Your task to perform on an android device: toggle data saver in the chrome app Image 0: 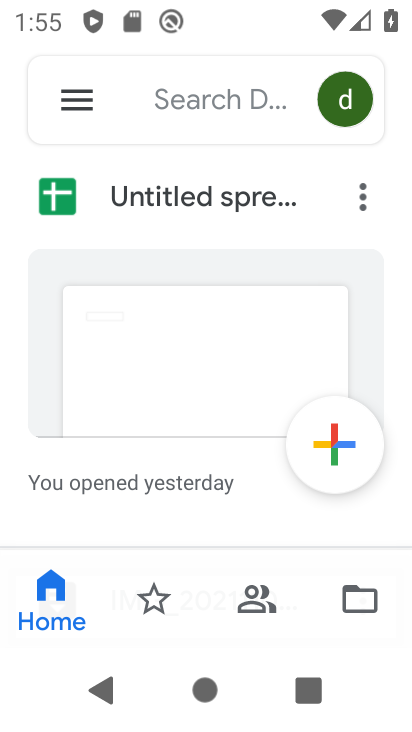
Step 0: press home button
Your task to perform on an android device: toggle data saver in the chrome app Image 1: 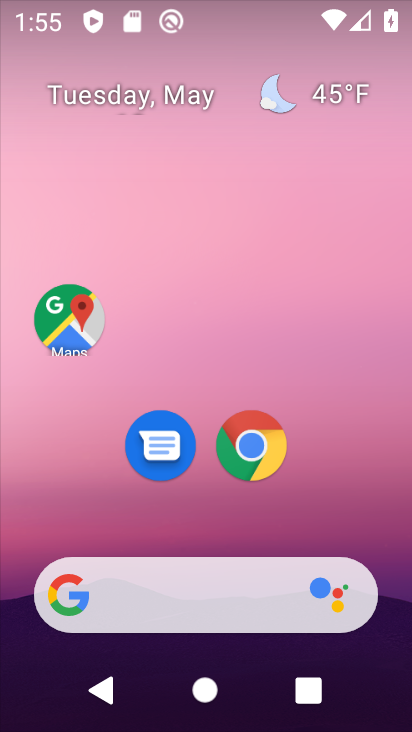
Step 1: click (254, 439)
Your task to perform on an android device: toggle data saver in the chrome app Image 2: 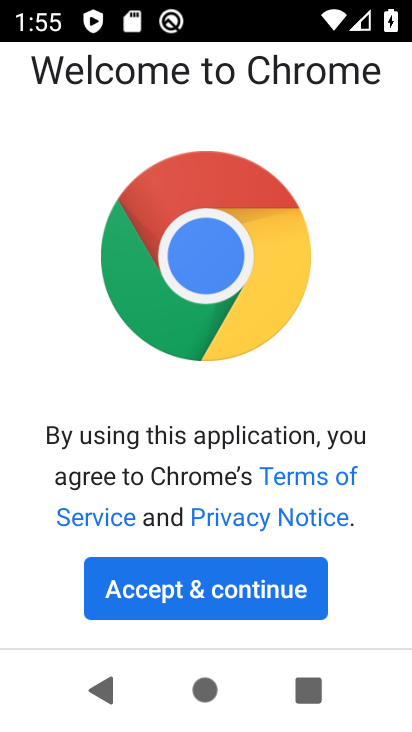
Step 2: click (206, 590)
Your task to perform on an android device: toggle data saver in the chrome app Image 3: 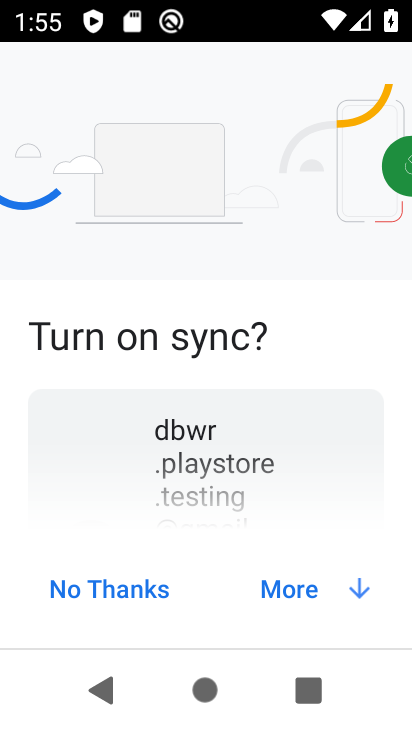
Step 3: click (294, 588)
Your task to perform on an android device: toggle data saver in the chrome app Image 4: 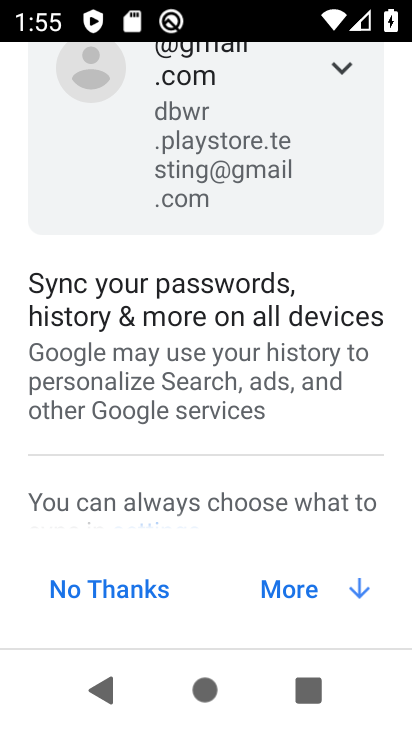
Step 4: click (295, 588)
Your task to perform on an android device: toggle data saver in the chrome app Image 5: 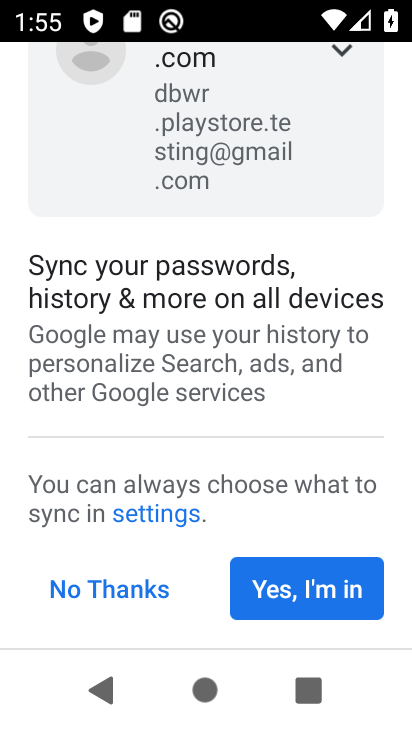
Step 5: click (295, 588)
Your task to perform on an android device: toggle data saver in the chrome app Image 6: 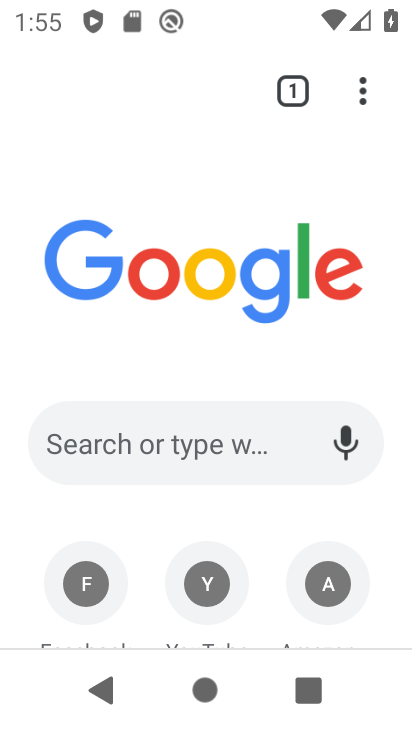
Step 6: click (352, 91)
Your task to perform on an android device: toggle data saver in the chrome app Image 7: 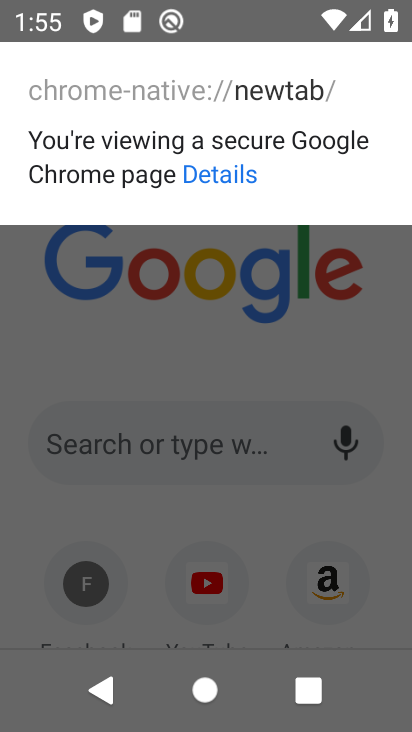
Step 7: click (310, 251)
Your task to perform on an android device: toggle data saver in the chrome app Image 8: 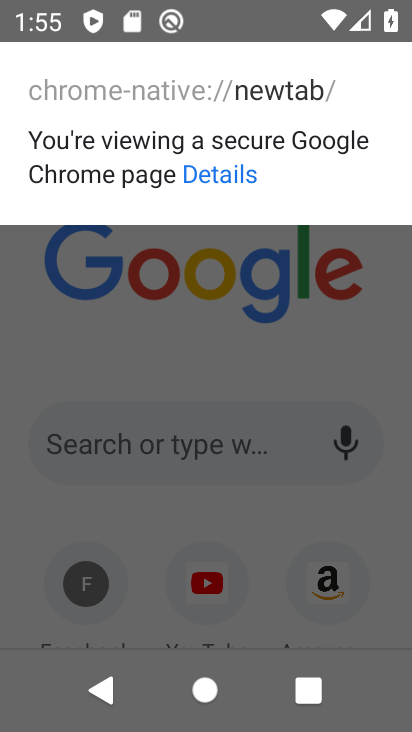
Step 8: click (347, 325)
Your task to perform on an android device: toggle data saver in the chrome app Image 9: 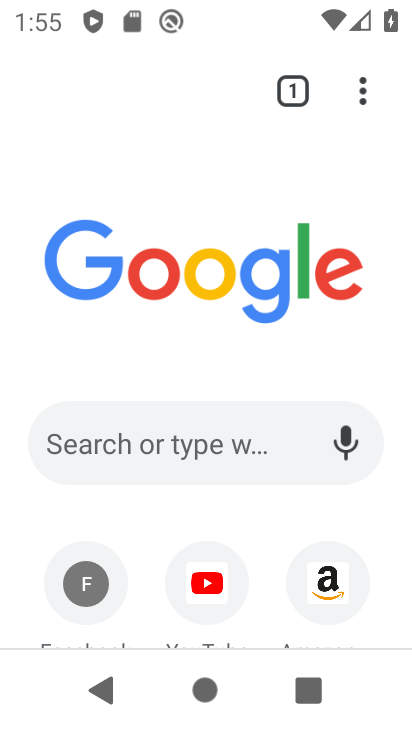
Step 9: click (351, 89)
Your task to perform on an android device: toggle data saver in the chrome app Image 10: 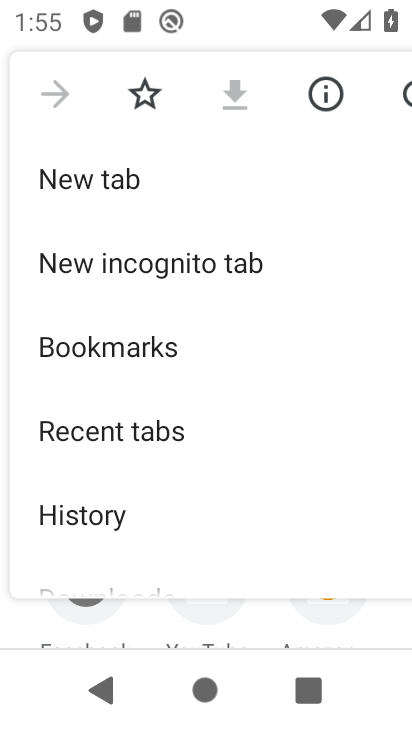
Step 10: drag from (285, 572) to (325, 172)
Your task to perform on an android device: toggle data saver in the chrome app Image 11: 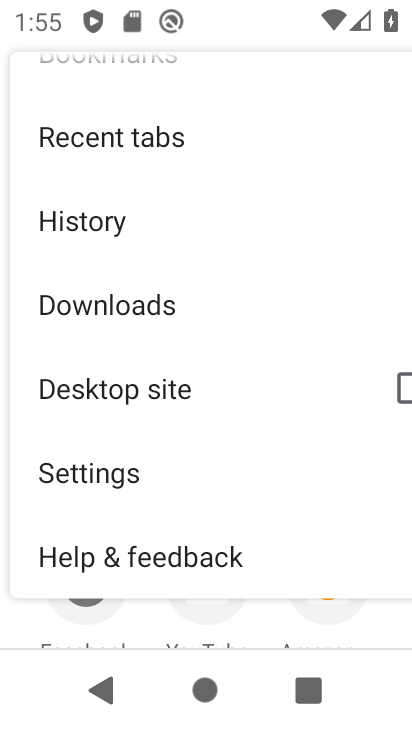
Step 11: drag from (209, 501) to (247, 142)
Your task to perform on an android device: toggle data saver in the chrome app Image 12: 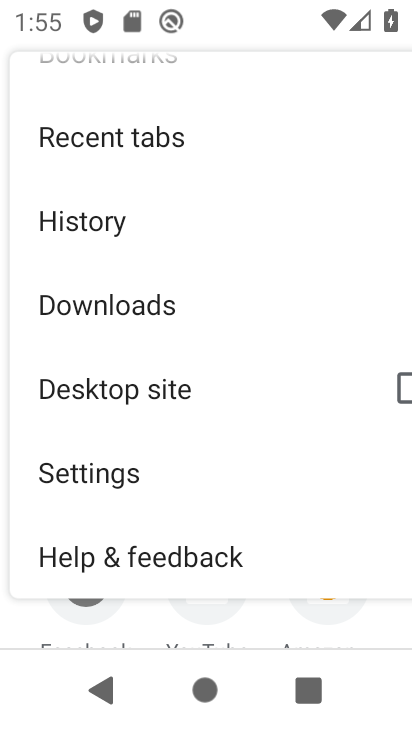
Step 12: drag from (123, 475) to (172, 290)
Your task to perform on an android device: toggle data saver in the chrome app Image 13: 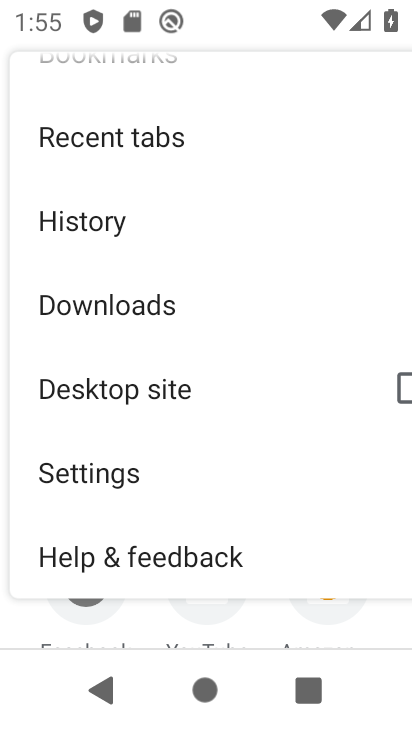
Step 13: click (102, 481)
Your task to perform on an android device: toggle data saver in the chrome app Image 14: 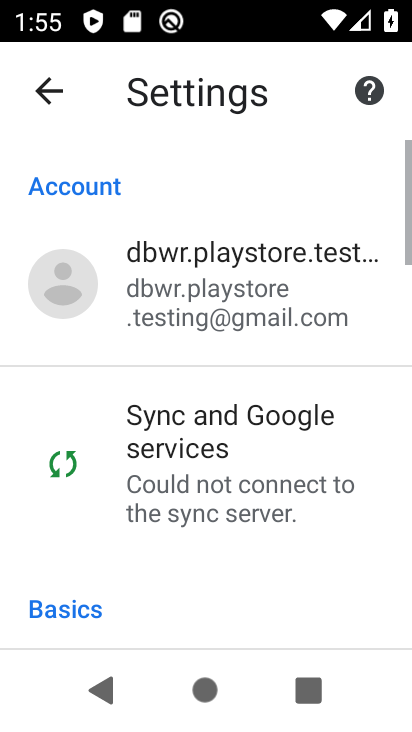
Step 14: drag from (230, 576) to (239, 106)
Your task to perform on an android device: toggle data saver in the chrome app Image 15: 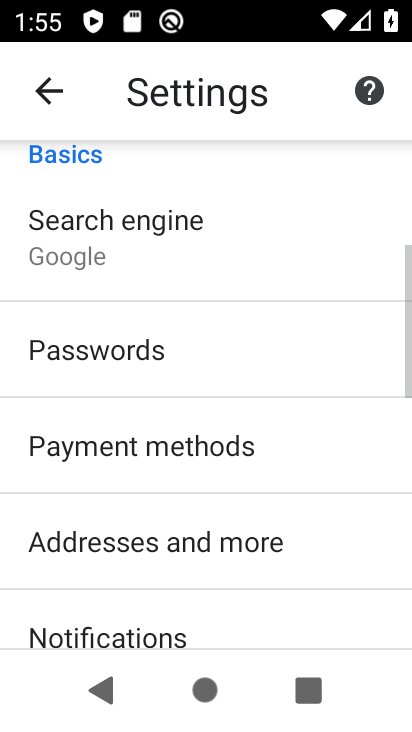
Step 15: drag from (201, 586) to (217, 96)
Your task to perform on an android device: toggle data saver in the chrome app Image 16: 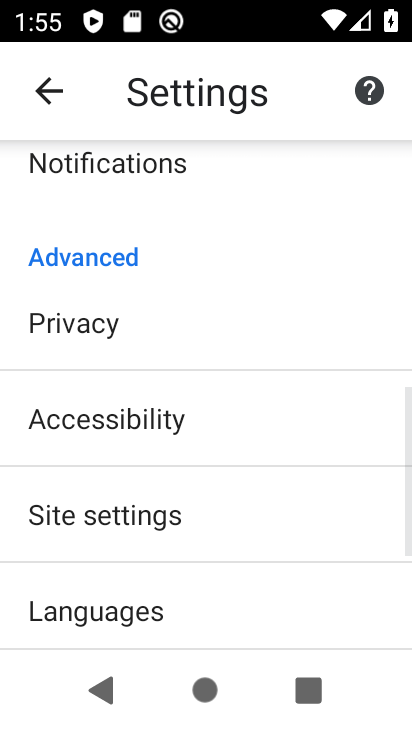
Step 16: drag from (176, 569) to (185, 347)
Your task to perform on an android device: toggle data saver in the chrome app Image 17: 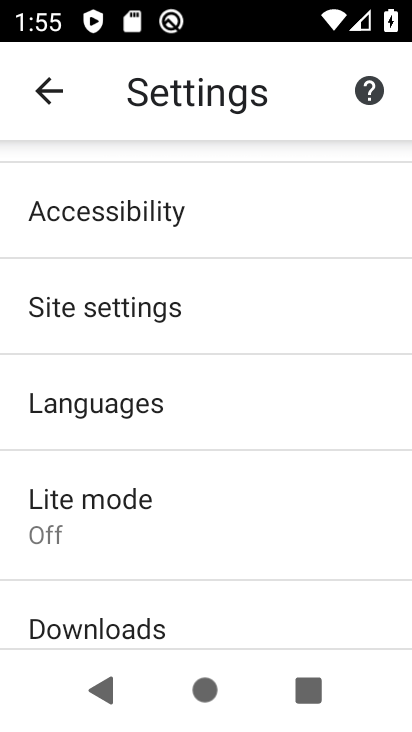
Step 17: click (134, 532)
Your task to perform on an android device: toggle data saver in the chrome app Image 18: 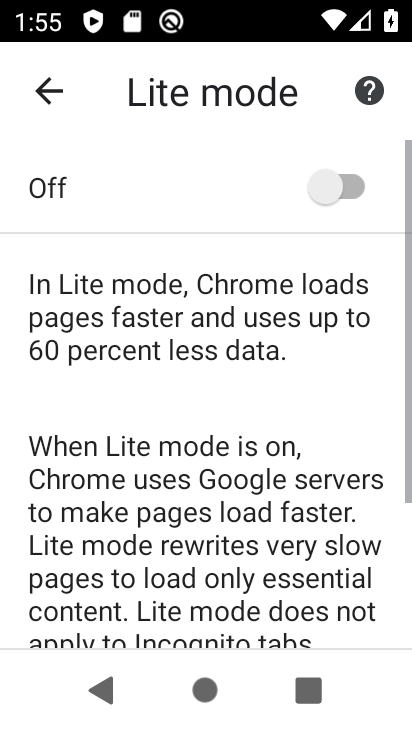
Step 18: click (343, 192)
Your task to perform on an android device: toggle data saver in the chrome app Image 19: 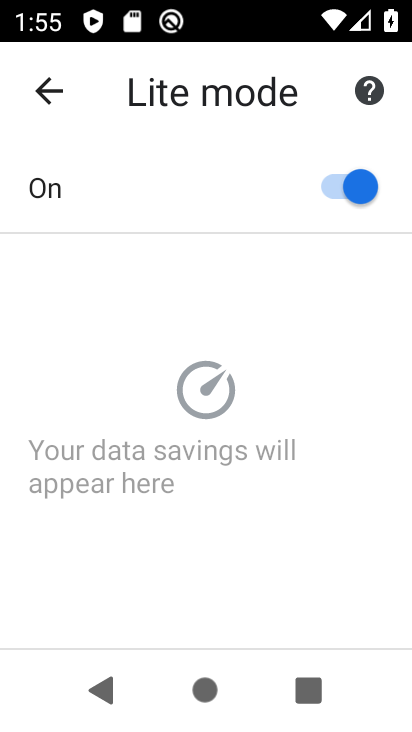
Step 19: task complete